Your task to perform on an android device: See recent photos Image 0: 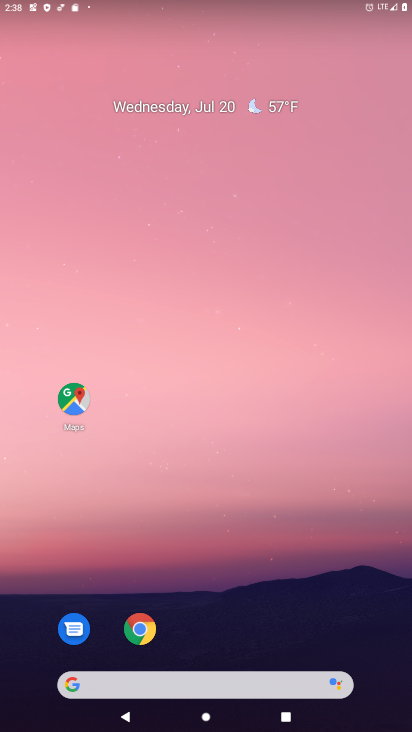
Step 0: drag from (366, 644) to (374, 18)
Your task to perform on an android device: See recent photos Image 1: 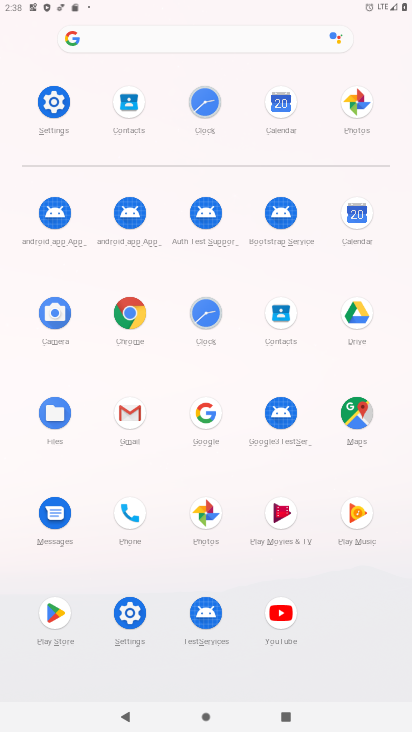
Step 1: click (206, 514)
Your task to perform on an android device: See recent photos Image 2: 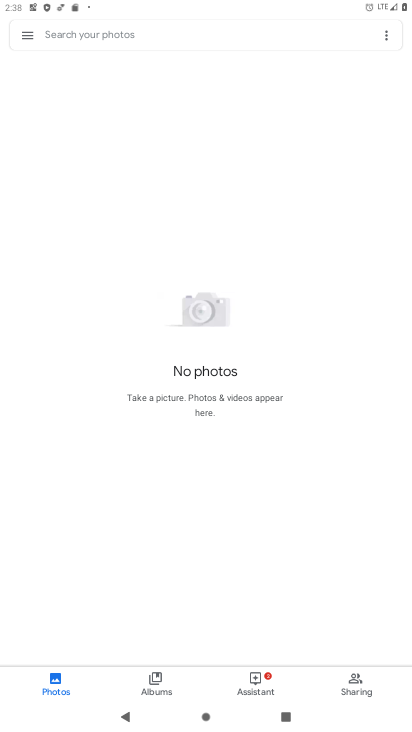
Step 2: task complete